Your task to perform on an android device: create a new album in the google photos Image 0: 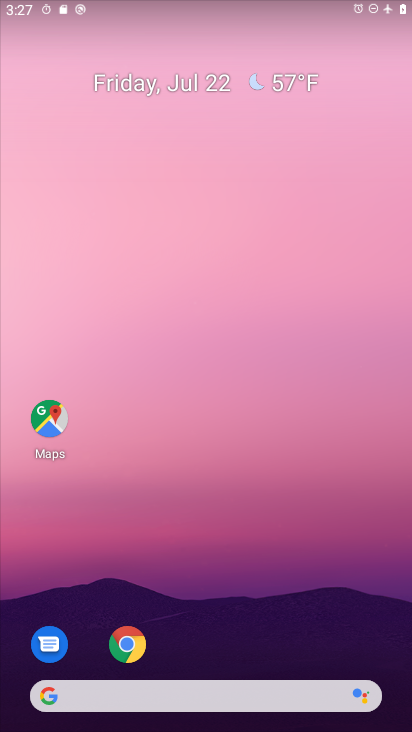
Step 0: drag from (184, 645) to (176, 268)
Your task to perform on an android device: create a new album in the google photos Image 1: 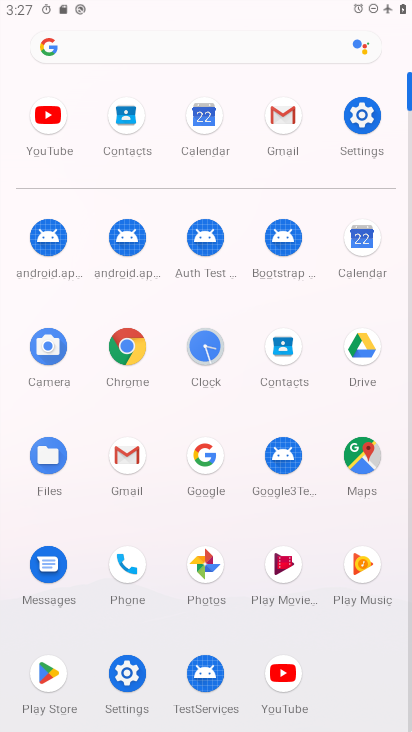
Step 1: click (200, 588)
Your task to perform on an android device: create a new album in the google photos Image 2: 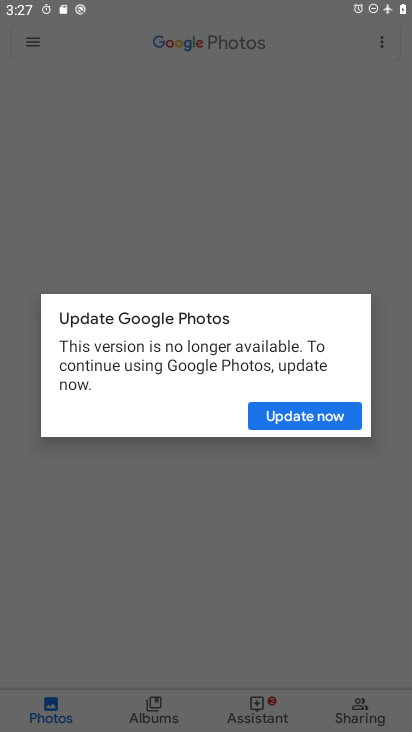
Step 2: click (292, 414)
Your task to perform on an android device: create a new album in the google photos Image 3: 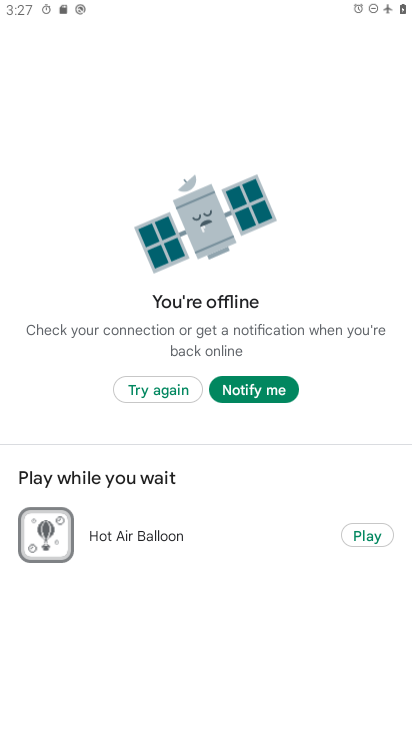
Step 3: press back button
Your task to perform on an android device: create a new album in the google photos Image 4: 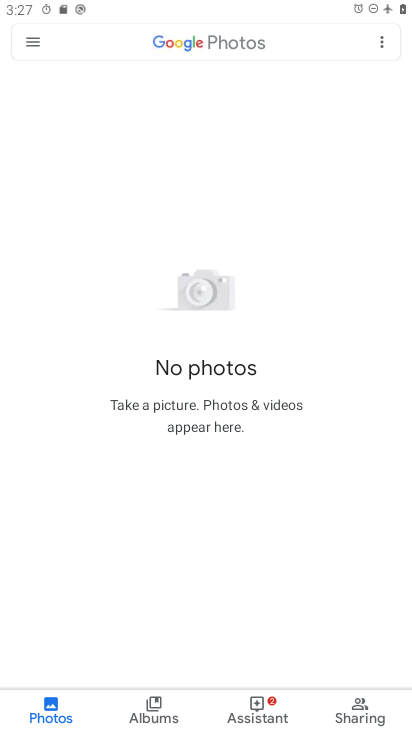
Step 4: click (347, 52)
Your task to perform on an android device: create a new album in the google photos Image 5: 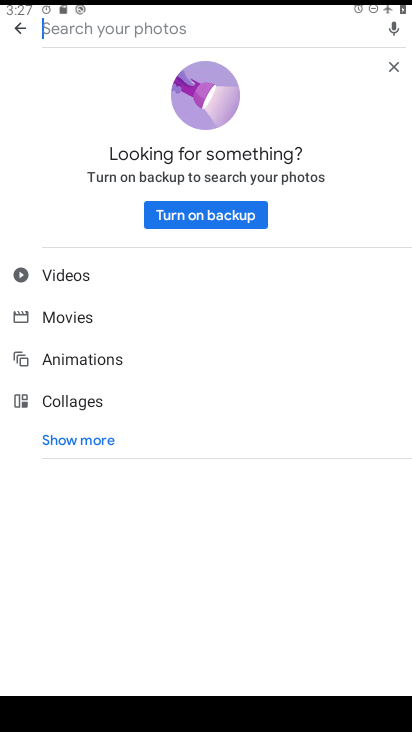
Step 5: click (388, 57)
Your task to perform on an android device: create a new album in the google photos Image 6: 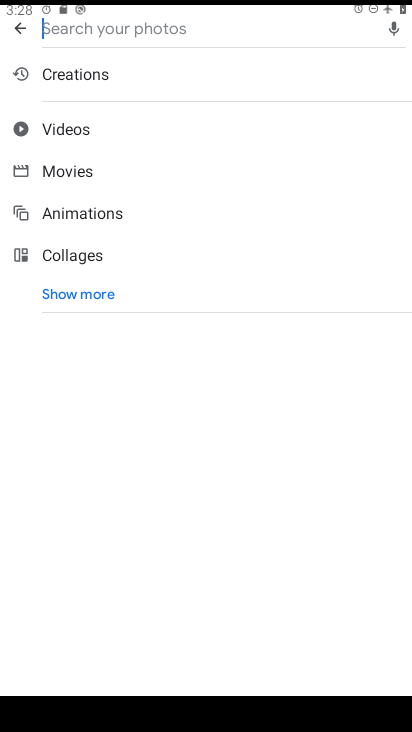
Step 6: click (28, 30)
Your task to perform on an android device: create a new album in the google photos Image 7: 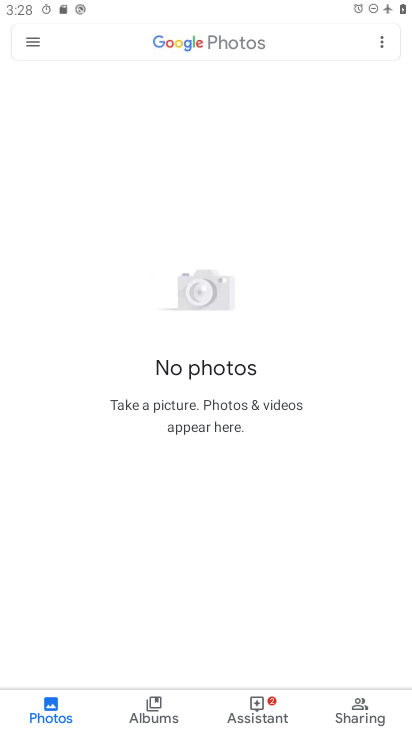
Step 7: click (382, 47)
Your task to perform on an android device: create a new album in the google photos Image 8: 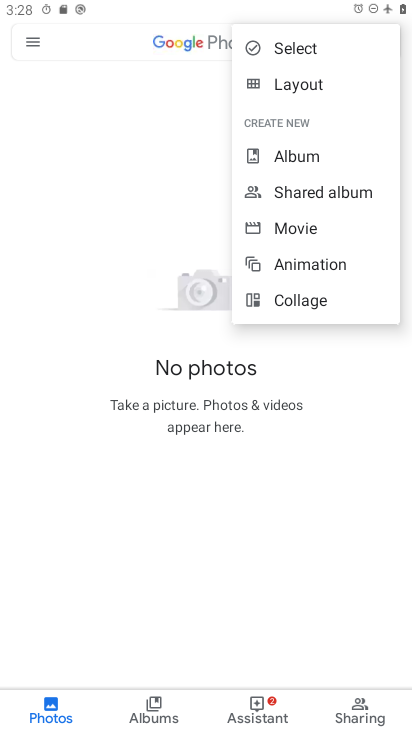
Step 8: click (318, 159)
Your task to perform on an android device: create a new album in the google photos Image 9: 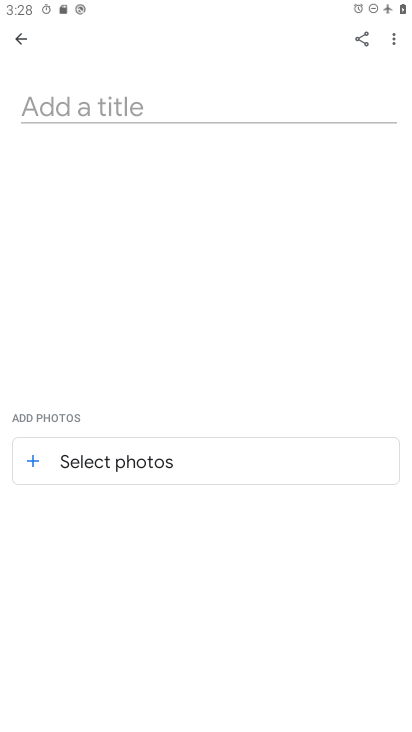
Step 9: click (158, 463)
Your task to perform on an android device: create a new album in the google photos Image 10: 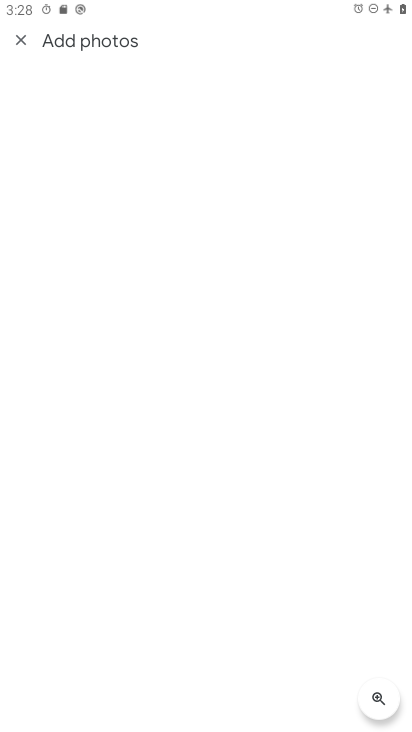
Step 10: click (32, 40)
Your task to perform on an android device: create a new album in the google photos Image 11: 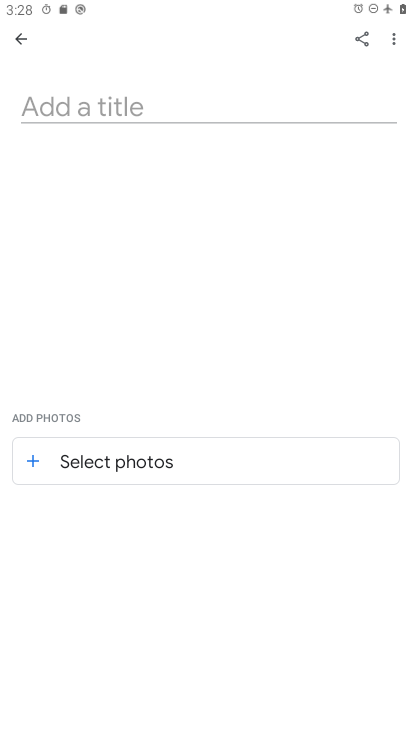
Step 11: click (90, 113)
Your task to perform on an android device: create a new album in the google photos Image 12: 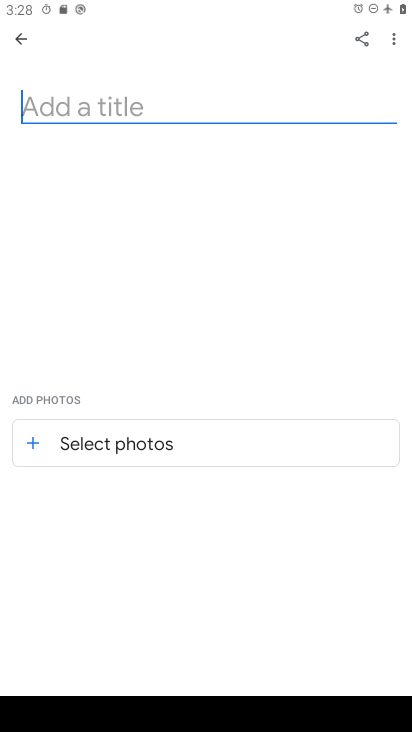
Step 12: type "dgfh"
Your task to perform on an android device: create a new album in the google photos Image 13: 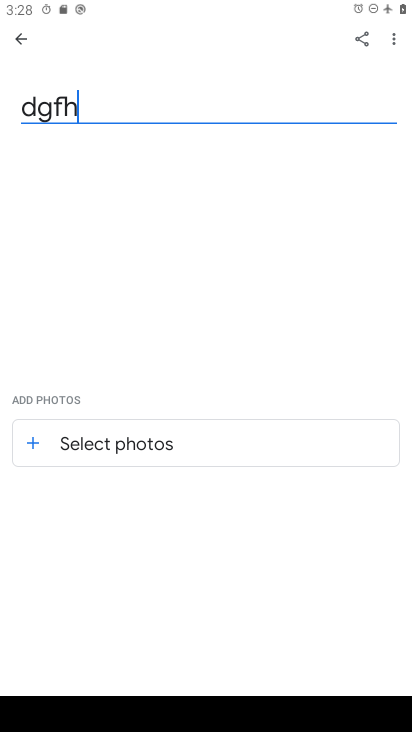
Step 13: click (18, 44)
Your task to perform on an android device: create a new album in the google photos Image 14: 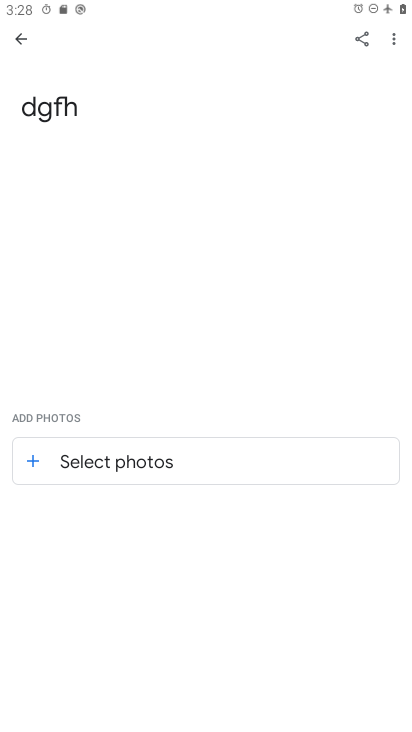
Step 14: click (23, 44)
Your task to perform on an android device: create a new album in the google photos Image 15: 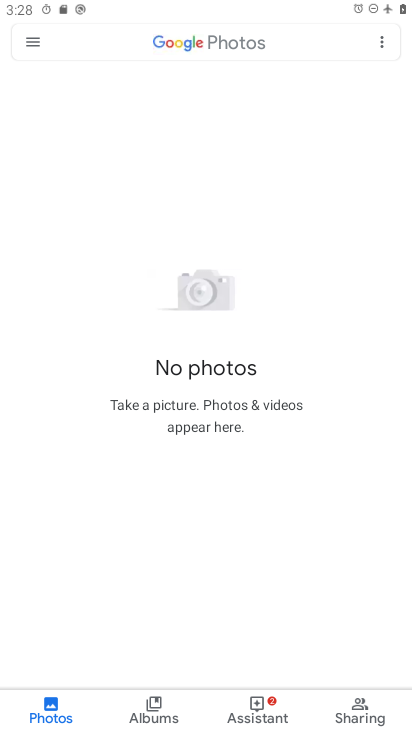
Step 15: task complete